Your task to perform on an android device: Go to CNN.com Image 0: 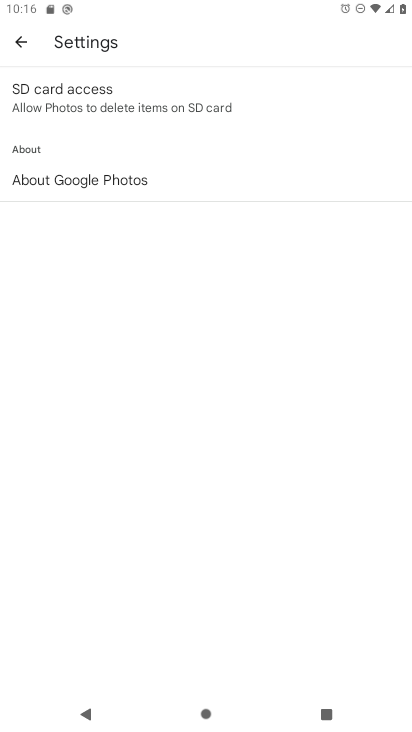
Step 0: press home button
Your task to perform on an android device: Go to CNN.com Image 1: 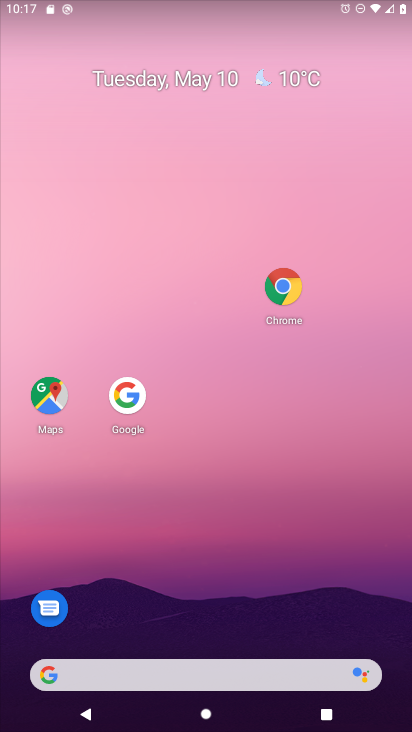
Step 1: drag from (186, 662) to (334, 0)
Your task to perform on an android device: Go to CNN.com Image 2: 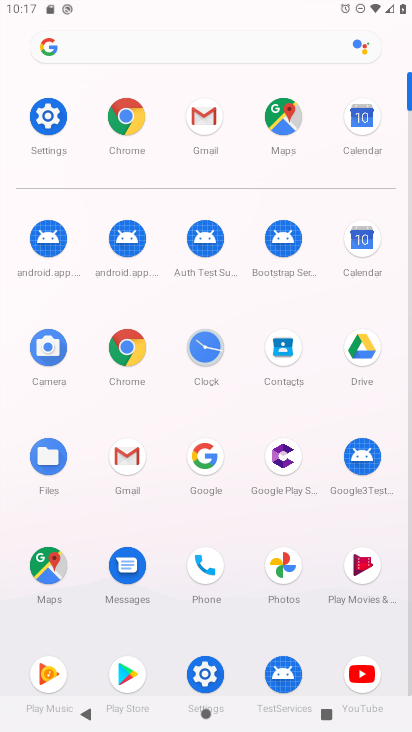
Step 2: click (129, 122)
Your task to perform on an android device: Go to CNN.com Image 3: 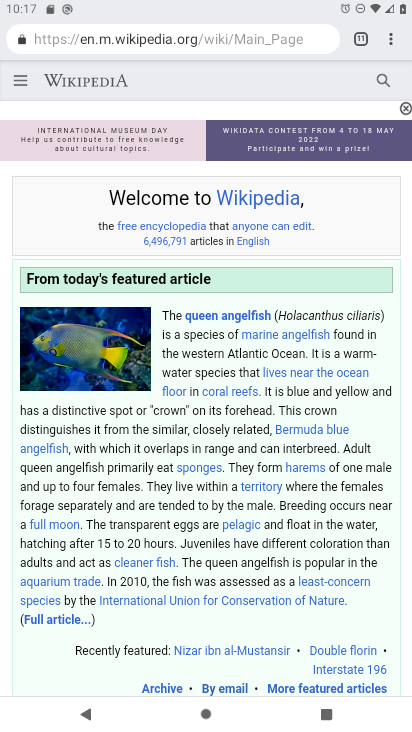
Step 3: drag from (387, 37) to (314, 76)
Your task to perform on an android device: Go to CNN.com Image 4: 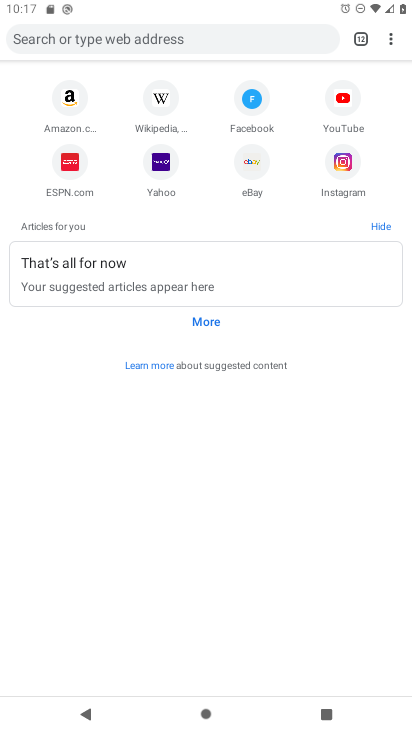
Step 4: click (120, 34)
Your task to perform on an android device: Go to CNN.com Image 5: 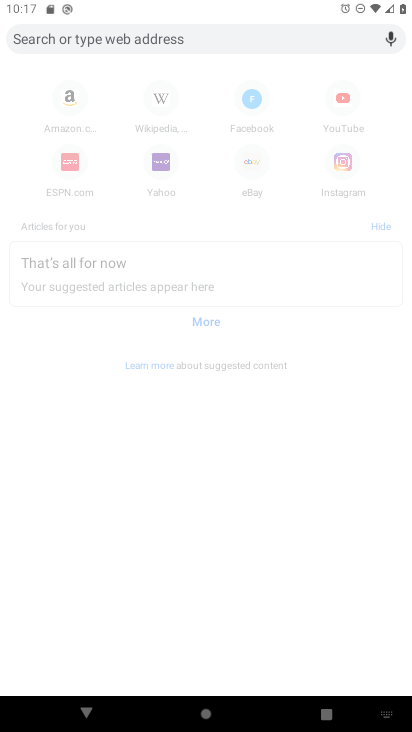
Step 5: type "cnn.com"
Your task to perform on an android device: Go to CNN.com Image 6: 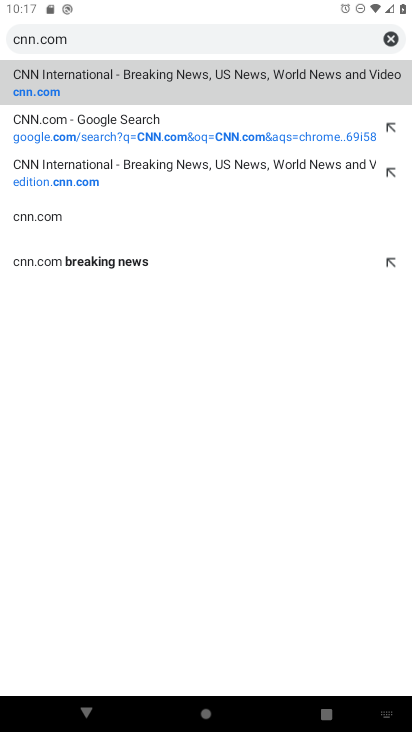
Step 6: click (58, 217)
Your task to perform on an android device: Go to CNN.com Image 7: 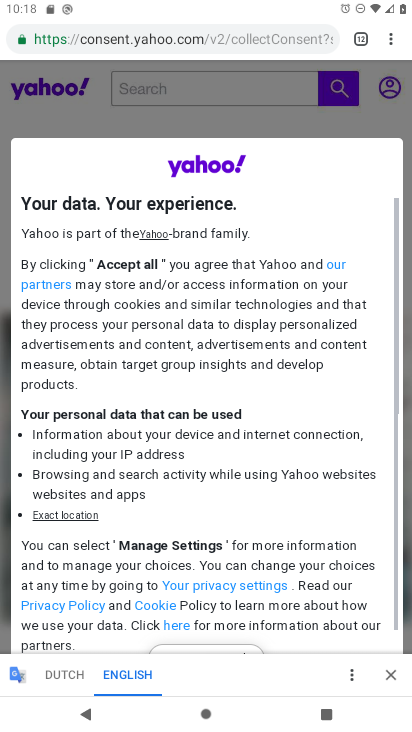
Step 7: task complete